Your task to perform on an android device: turn smart compose on in the gmail app Image 0: 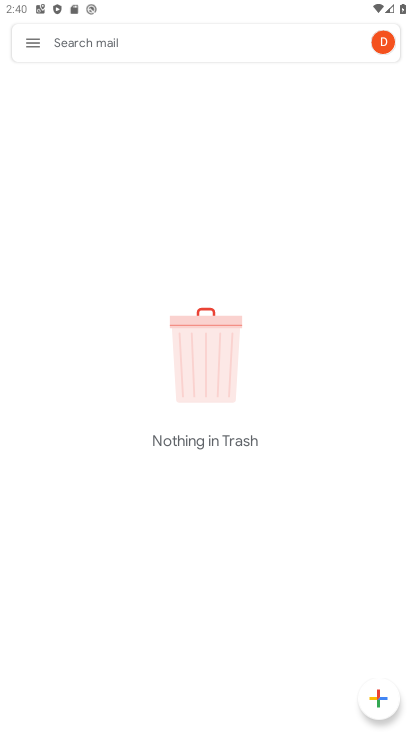
Step 0: click (28, 39)
Your task to perform on an android device: turn smart compose on in the gmail app Image 1: 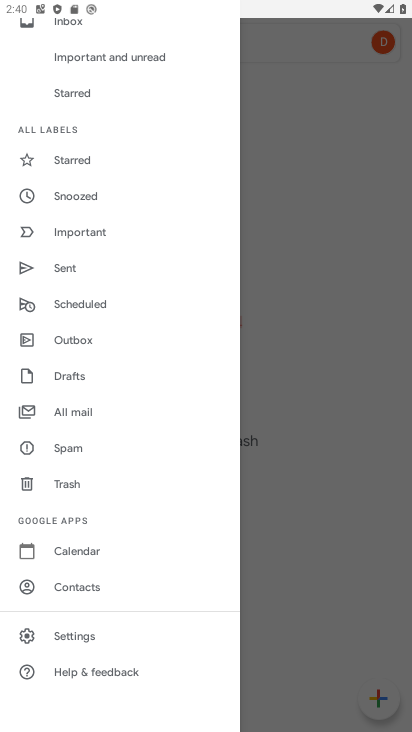
Step 1: click (122, 633)
Your task to perform on an android device: turn smart compose on in the gmail app Image 2: 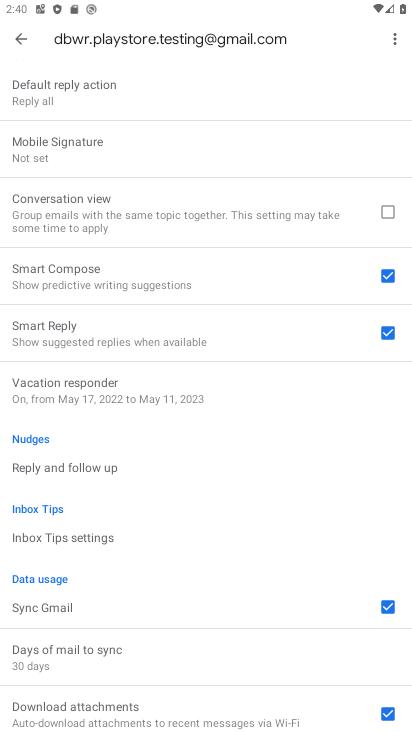
Step 2: task complete